Your task to perform on an android device: Open wifi settings Image 0: 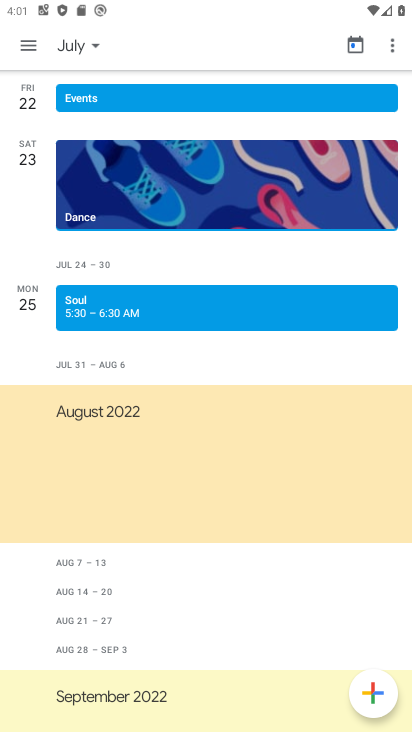
Step 0: press home button
Your task to perform on an android device: Open wifi settings Image 1: 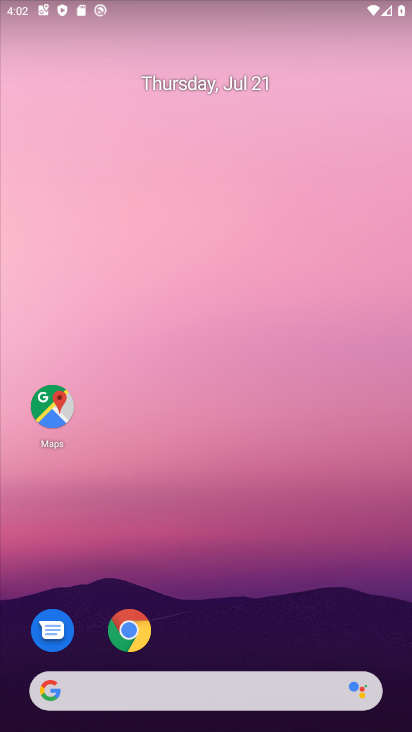
Step 1: drag from (224, 688) to (315, 161)
Your task to perform on an android device: Open wifi settings Image 2: 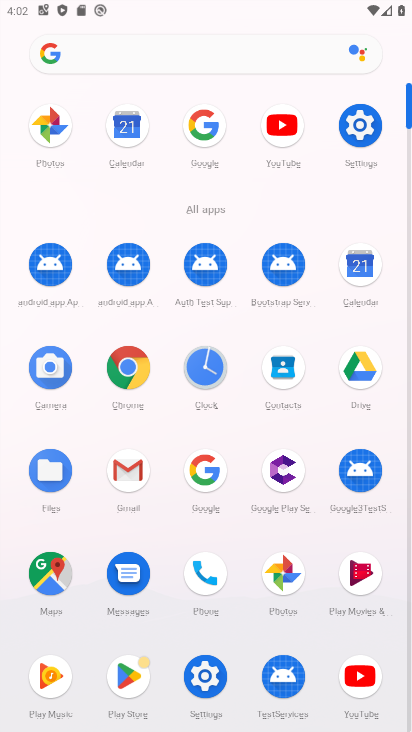
Step 2: click (359, 125)
Your task to perform on an android device: Open wifi settings Image 3: 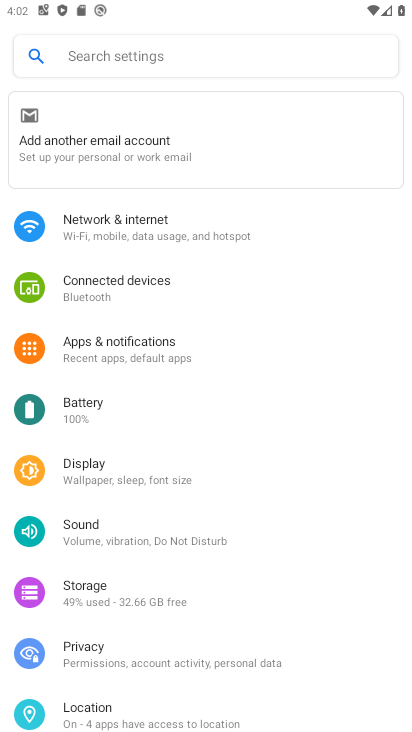
Step 3: click (121, 229)
Your task to perform on an android device: Open wifi settings Image 4: 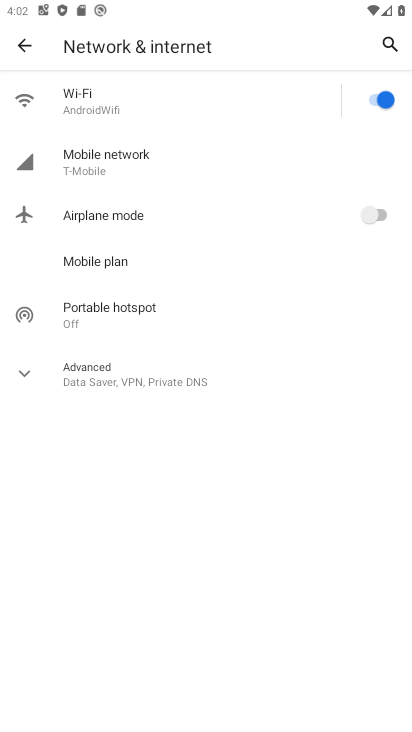
Step 4: click (79, 103)
Your task to perform on an android device: Open wifi settings Image 5: 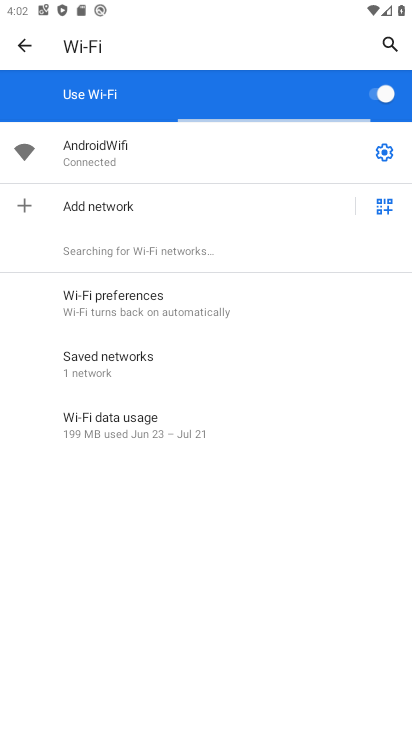
Step 5: click (383, 151)
Your task to perform on an android device: Open wifi settings Image 6: 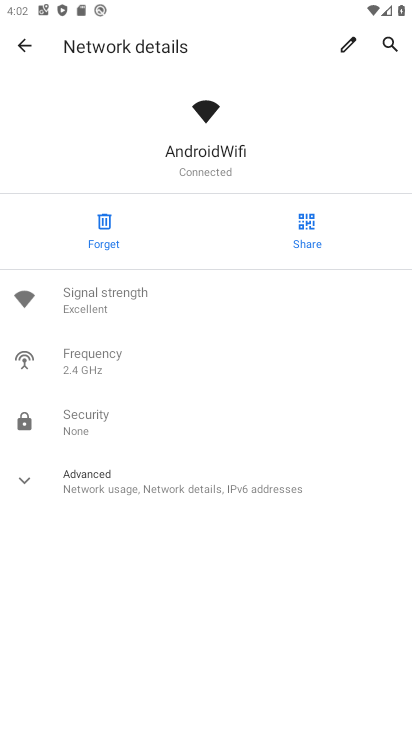
Step 6: task complete